Your task to perform on an android device: turn vacation reply on in the gmail app Image 0: 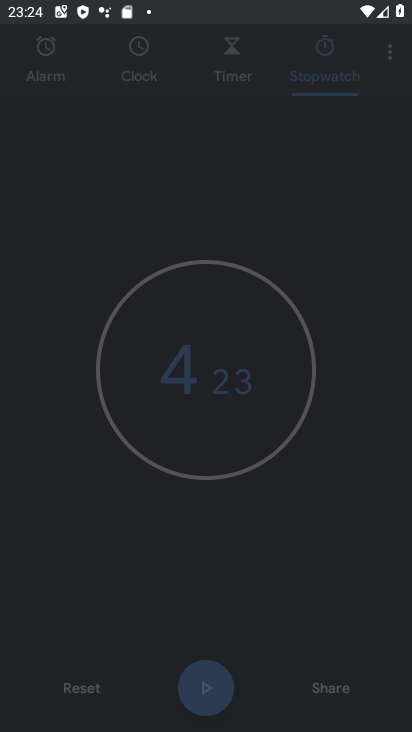
Step 0: press home button
Your task to perform on an android device: turn vacation reply on in the gmail app Image 1: 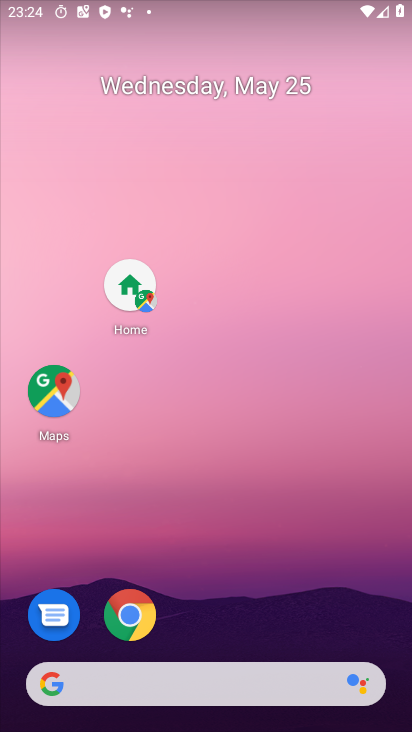
Step 1: drag from (245, 643) to (248, 131)
Your task to perform on an android device: turn vacation reply on in the gmail app Image 2: 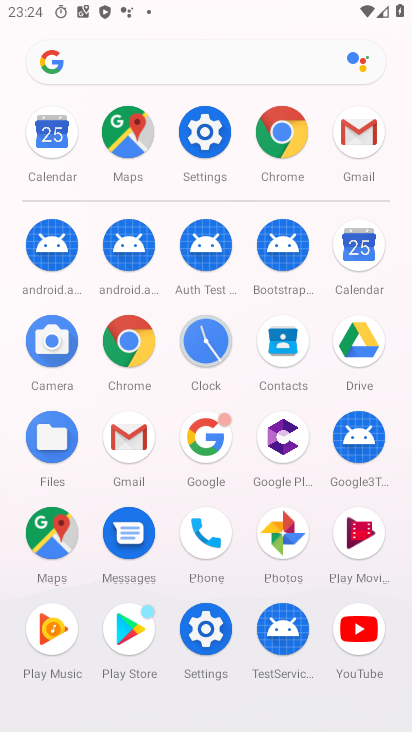
Step 2: click (350, 142)
Your task to perform on an android device: turn vacation reply on in the gmail app Image 3: 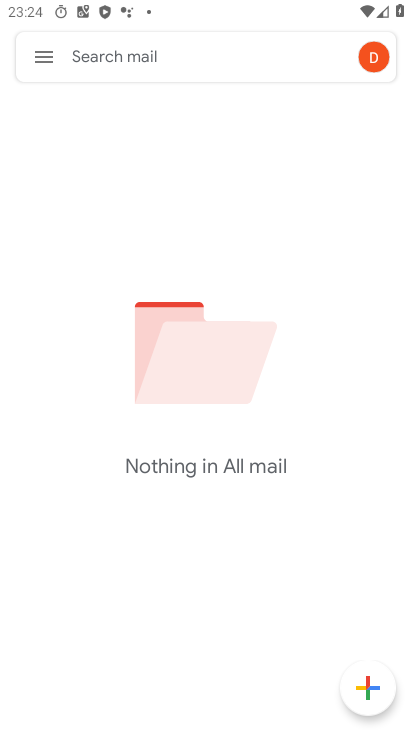
Step 3: click (49, 59)
Your task to perform on an android device: turn vacation reply on in the gmail app Image 4: 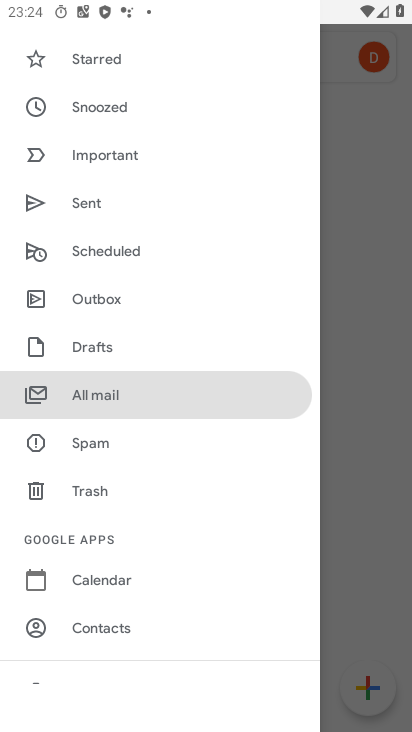
Step 4: drag from (215, 618) to (202, 235)
Your task to perform on an android device: turn vacation reply on in the gmail app Image 5: 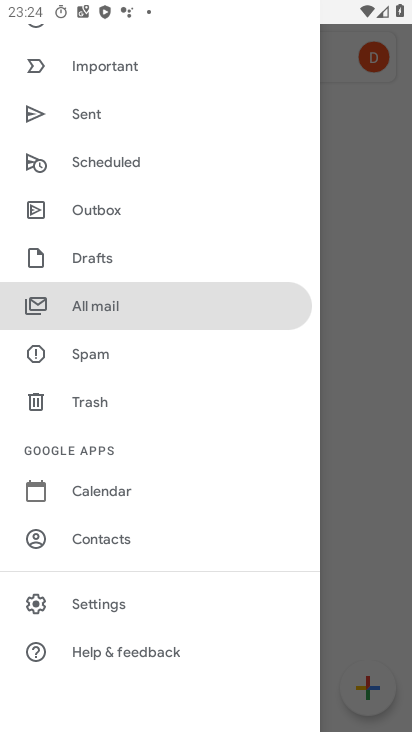
Step 5: click (101, 602)
Your task to perform on an android device: turn vacation reply on in the gmail app Image 6: 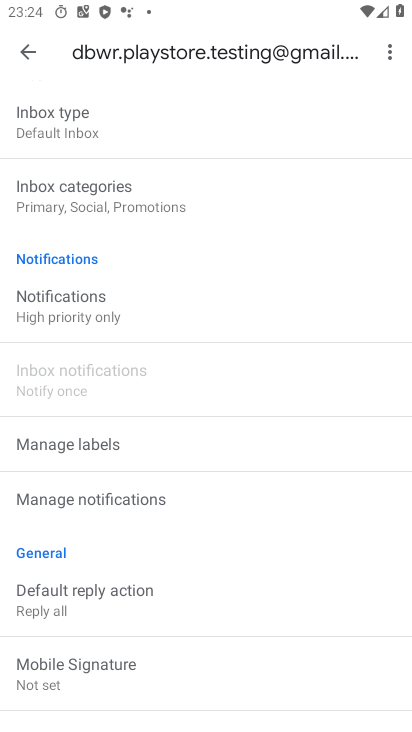
Step 6: drag from (298, 584) to (302, 0)
Your task to perform on an android device: turn vacation reply on in the gmail app Image 7: 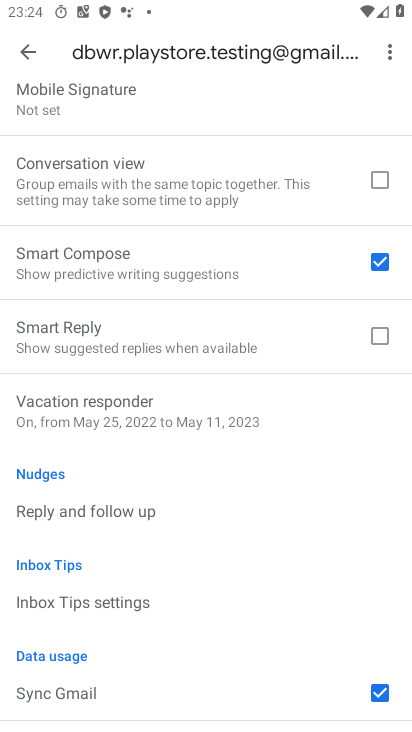
Step 7: click (82, 412)
Your task to perform on an android device: turn vacation reply on in the gmail app Image 8: 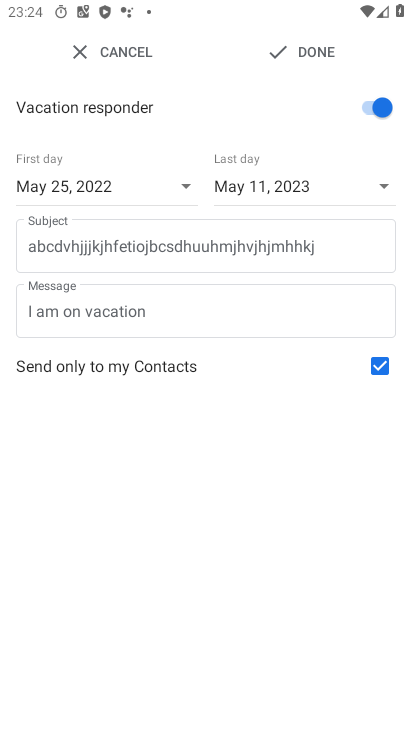
Step 8: task complete